Your task to perform on an android device: change the upload size in google photos Image 0: 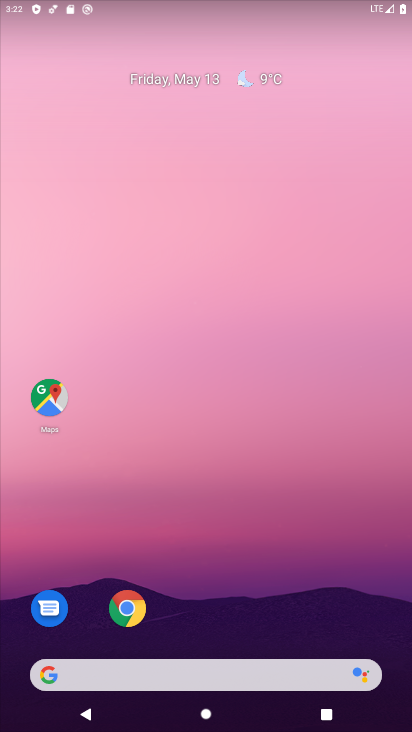
Step 0: drag from (183, 649) to (291, 123)
Your task to perform on an android device: change the upload size in google photos Image 1: 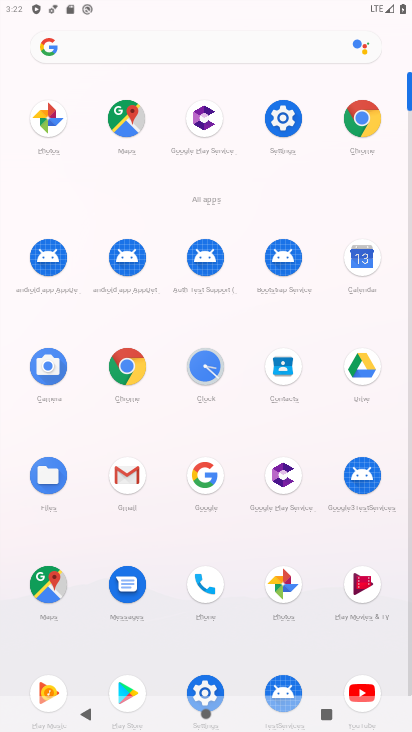
Step 1: click (297, 584)
Your task to perform on an android device: change the upload size in google photos Image 2: 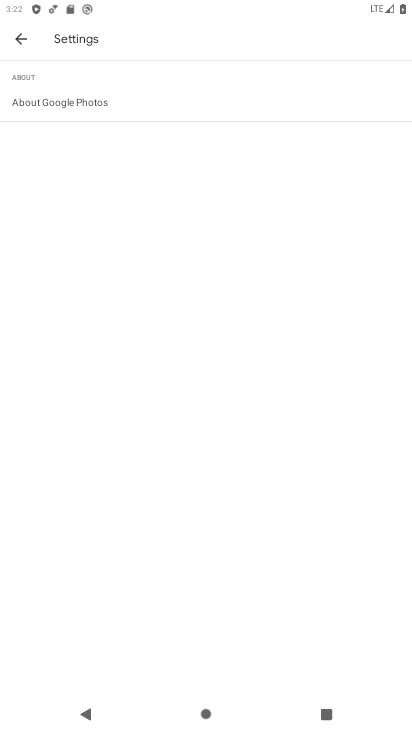
Step 2: click (27, 52)
Your task to perform on an android device: change the upload size in google photos Image 3: 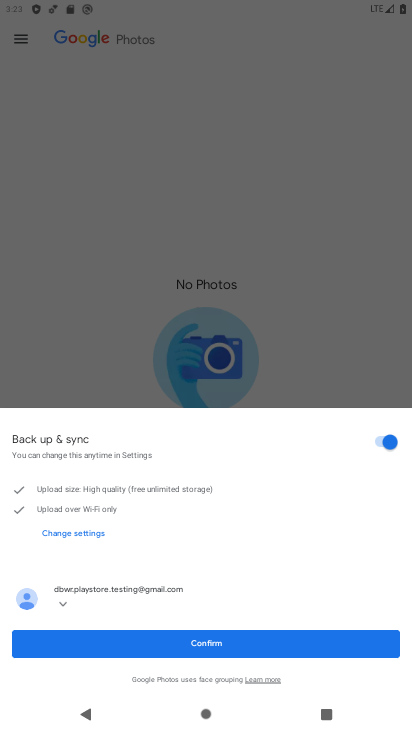
Step 3: click (201, 654)
Your task to perform on an android device: change the upload size in google photos Image 4: 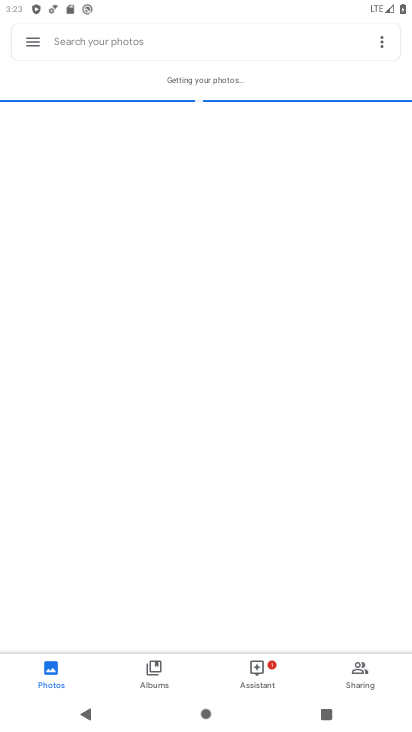
Step 4: click (35, 49)
Your task to perform on an android device: change the upload size in google photos Image 5: 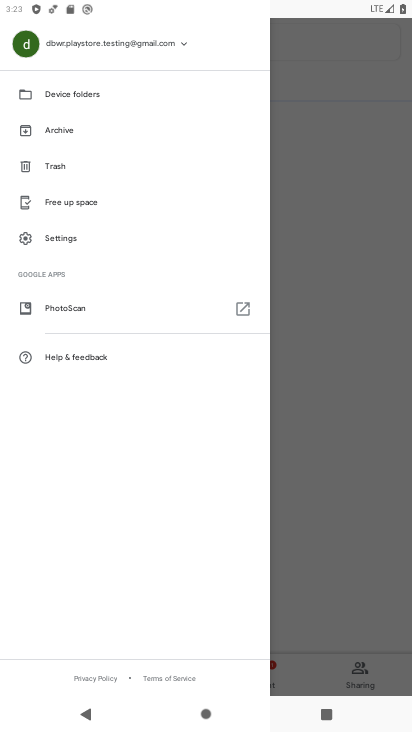
Step 5: click (95, 250)
Your task to perform on an android device: change the upload size in google photos Image 6: 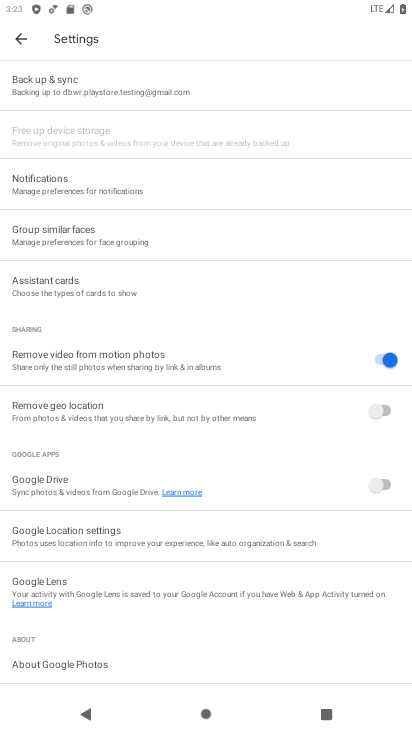
Step 6: click (137, 89)
Your task to perform on an android device: change the upload size in google photos Image 7: 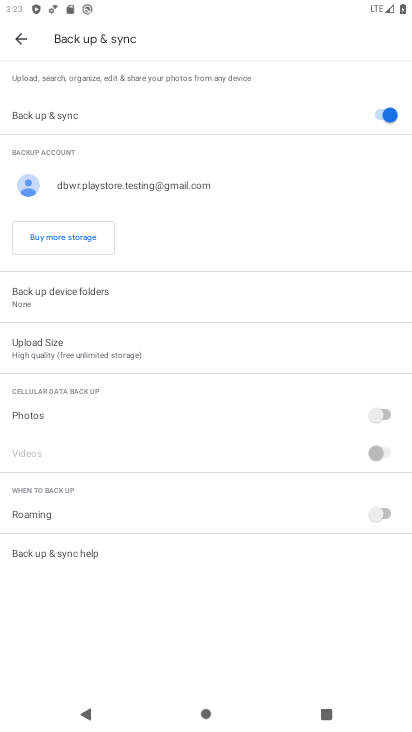
Step 7: click (147, 364)
Your task to perform on an android device: change the upload size in google photos Image 8: 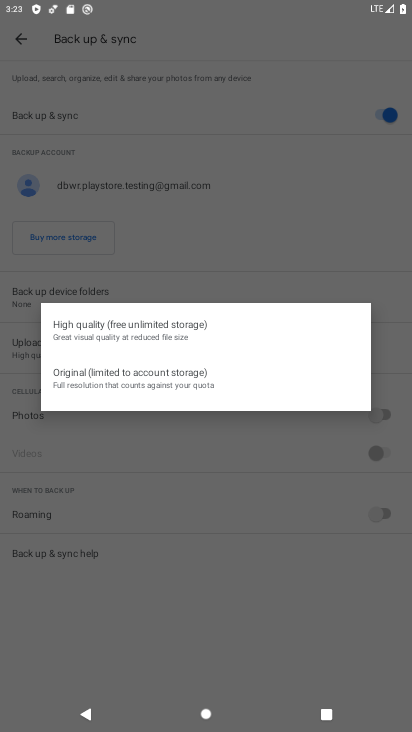
Step 8: click (148, 380)
Your task to perform on an android device: change the upload size in google photos Image 9: 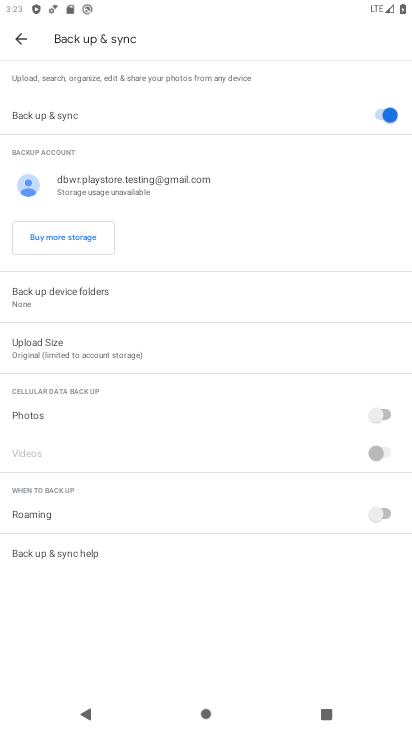
Step 9: task complete